Your task to perform on an android device: Add bose soundsport free to the cart on newegg.com Image 0: 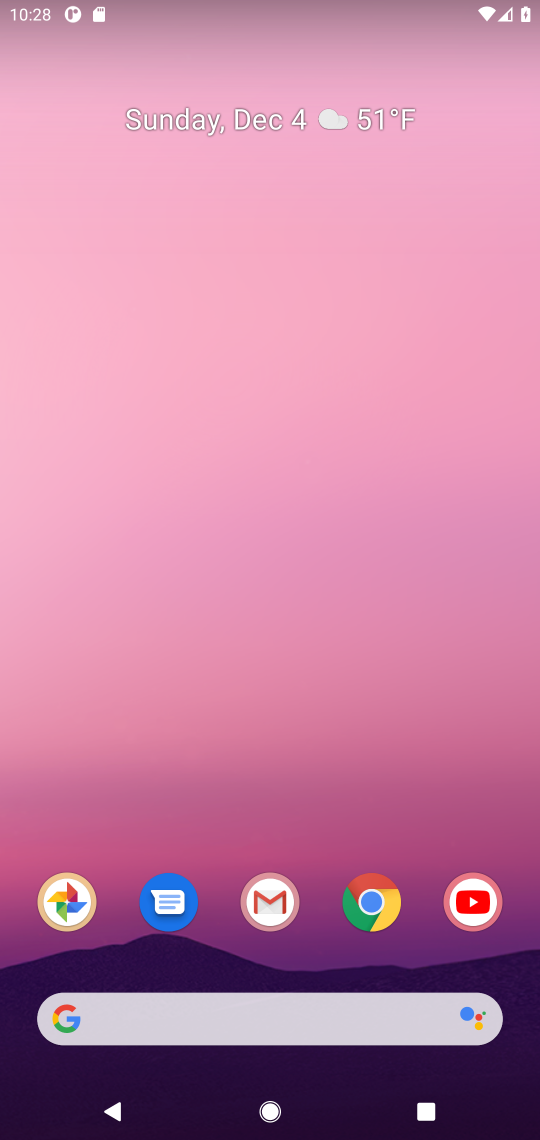
Step 0: click (373, 897)
Your task to perform on an android device: Add bose soundsport free to the cart on newegg.com Image 1: 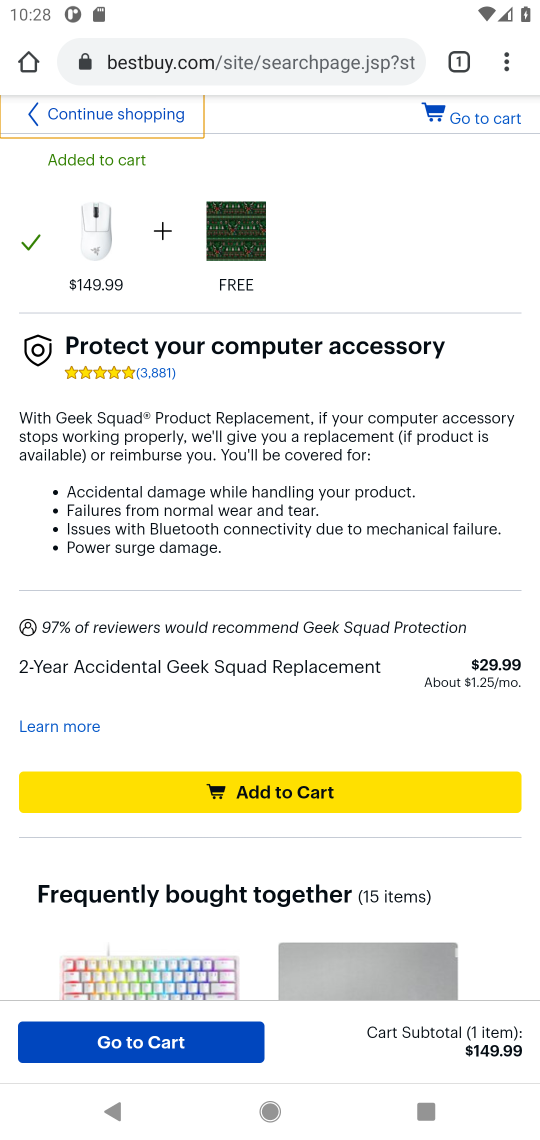
Step 1: click (267, 63)
Your task to perform on an android device: Add bose soundsport free to the cart on newegg.com Image 2: 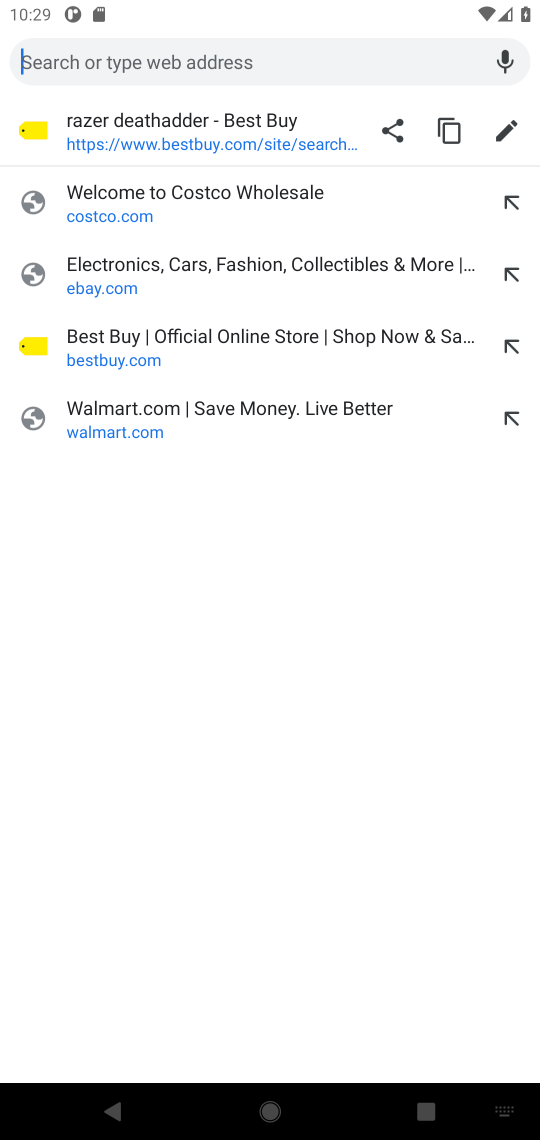
Step 2: type "newegg"
Your task to perform on an android device: Add bose soundsport free to the cart on newegg.com Image 3: 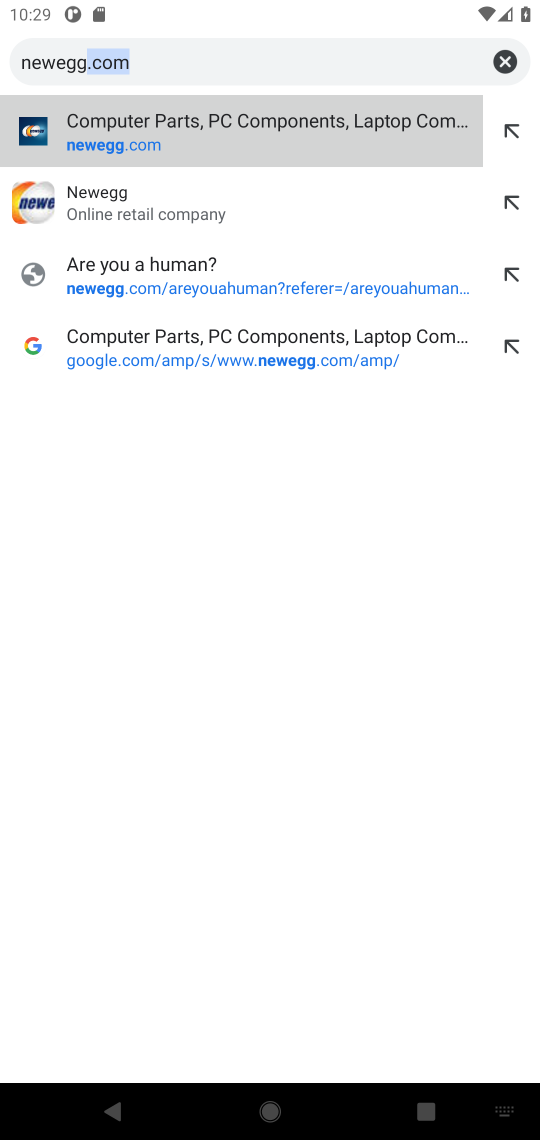
Step 3: click (201, 196)
Your task to perform on an android device: Add bose soundsport free to the cart on newegg.com Image 4: 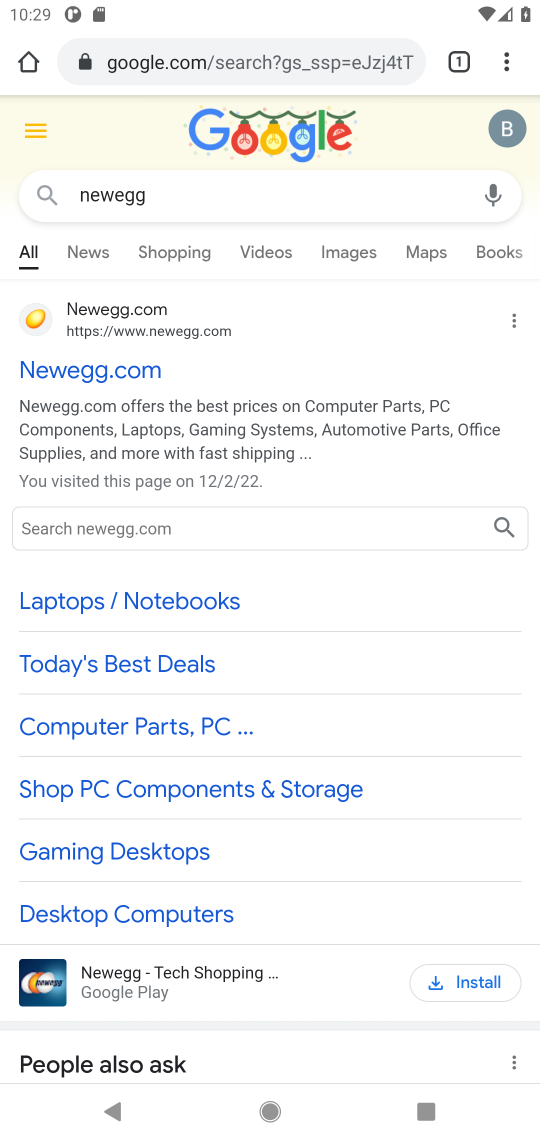
Step 4: click (90, 362)
Your task to perform on an android device: Add bose soundsport free to the cart on newegg.com Image 5: 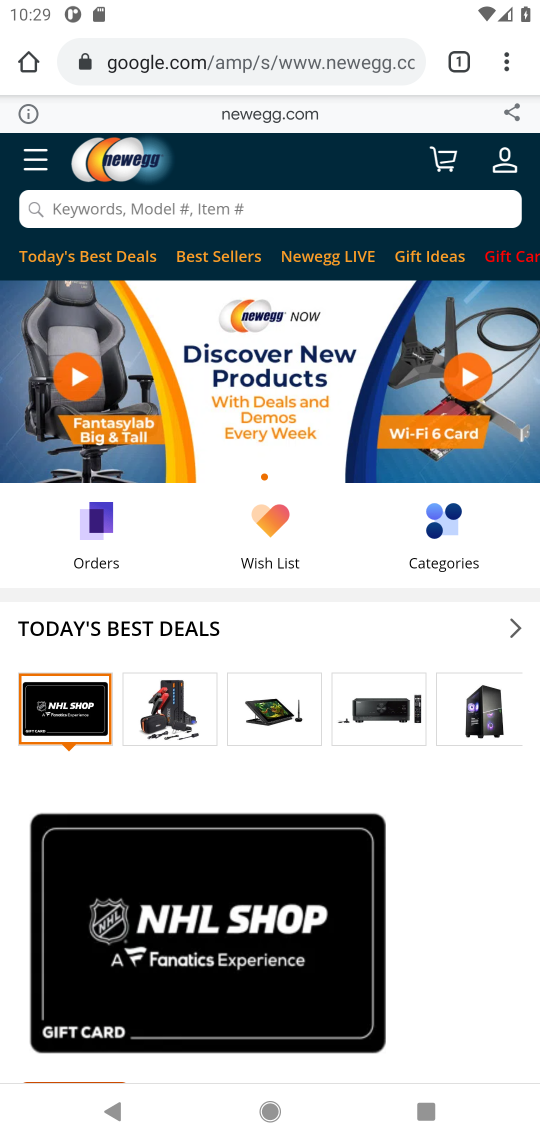
Step 5: click (300, 225)
Your task to perform on an android device: Add bose soundsport free to the cart on newegg.com Image 6: 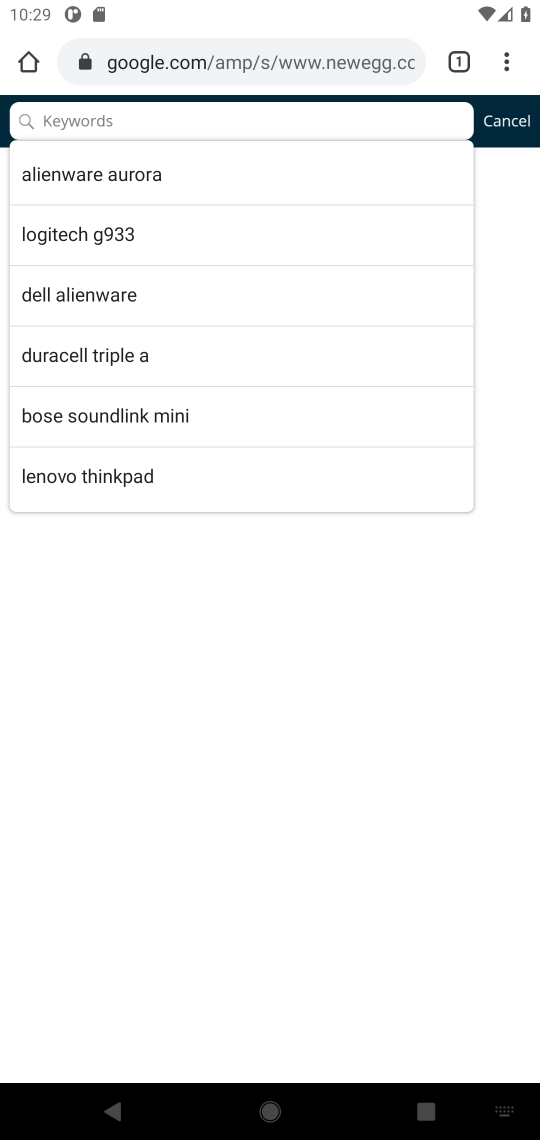
Step 6: type "bose soundsport free "
Your task to perform on an android device: Add bose soundsport free to the cart on newegg.com Image 7: 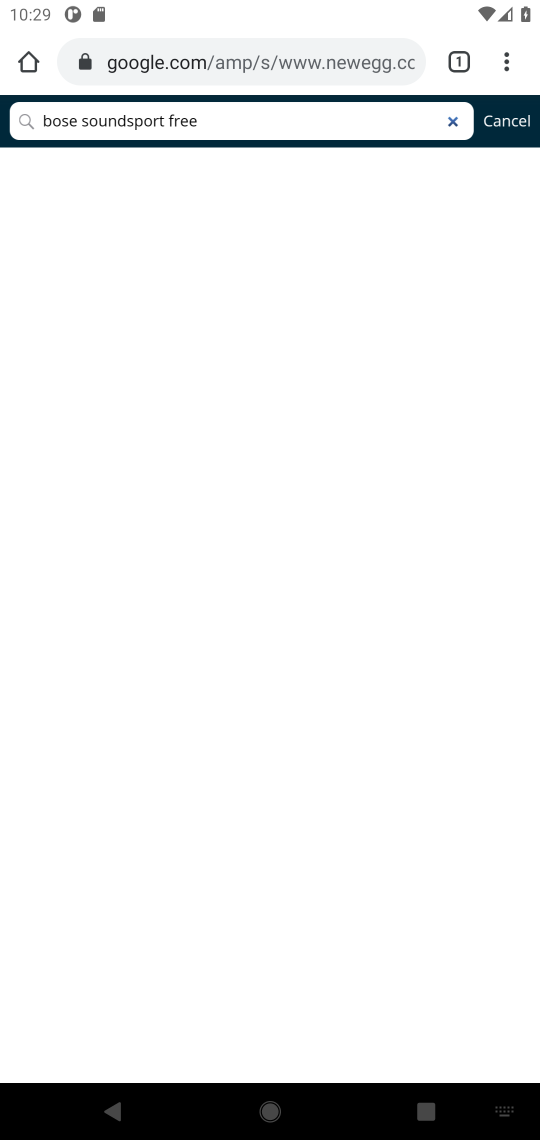
Step 7: task complete